Your task to perform on an android device: Open Google Chrome and click the shortcut for Amazon.com Image 0: 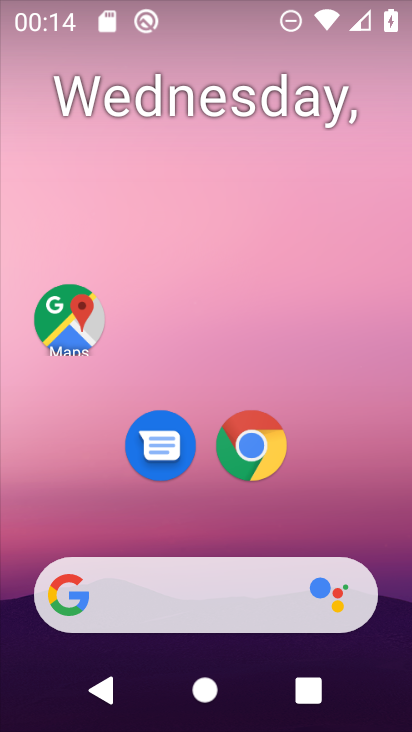
Step 0: click (239, 440)
Your task to perform on an android device: Open Google Chrome and click the shortcut for Amazon.com Image 1: 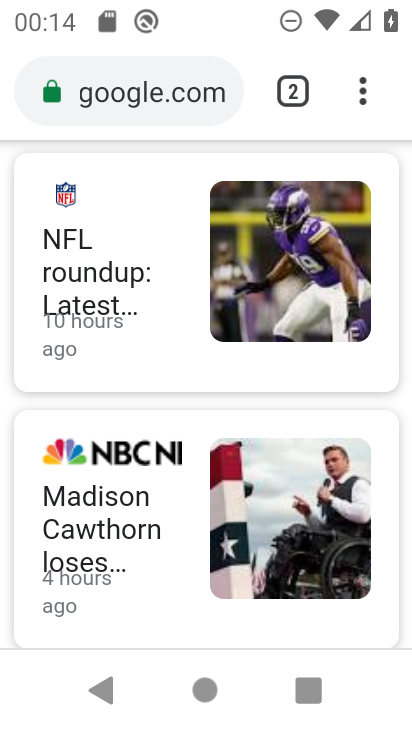
Step 1: click (358, 93)
Your task to perform on an android device: Open Google Chrome and click the shortcut for Amazon.com Image 2: 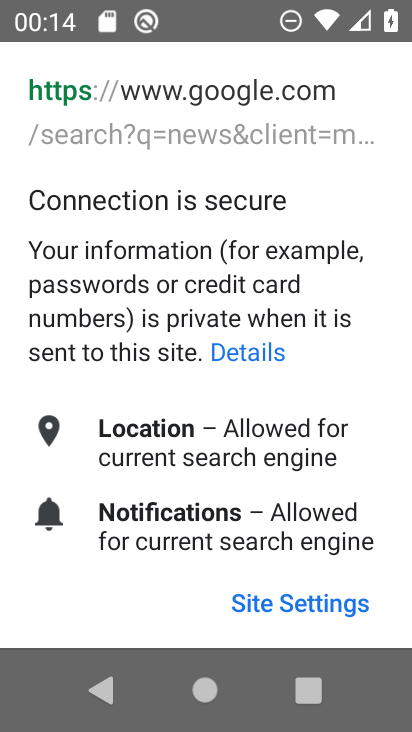
Step 2: press back button
Your task to perform on an android device: Open Google Chrome and click the shortcut for Amazon.com Image 3: 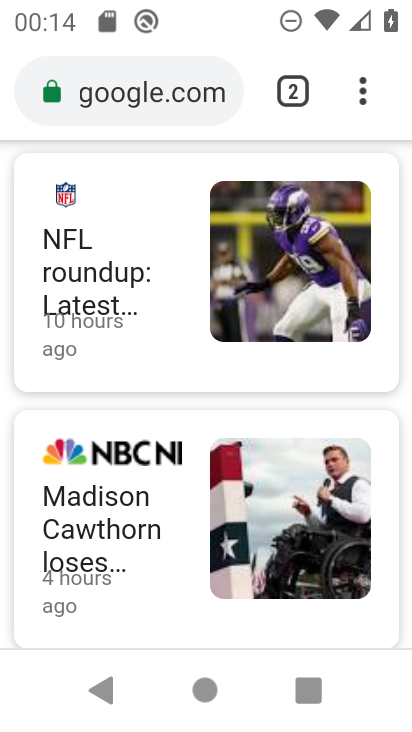
Step 3: click (383, 120)
Your task to perform on an android device: Open Google Chrome and click the shortcut for Amazon.com Image 4: 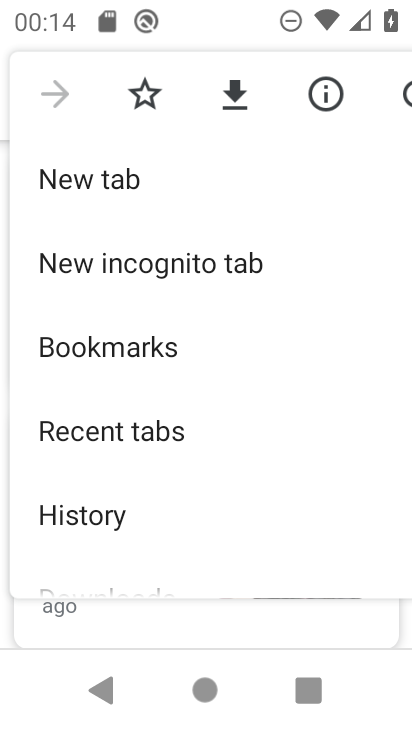
Step 4: click (100, 204)
Your task to perform on an android device: Open Google Chrome and click the shortcut for Amazon.com Image 5: 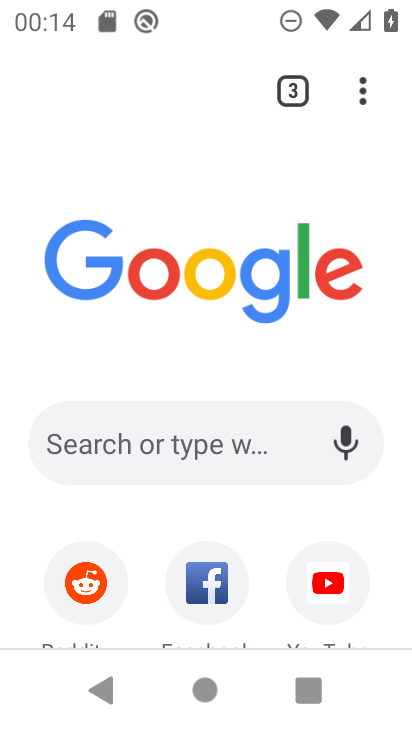
Step 5: drag from (235, 542) to (298, 62)
Your task to perform on an android device: Open Google Chrome and click the shortcut for Amazon.com Image 6: 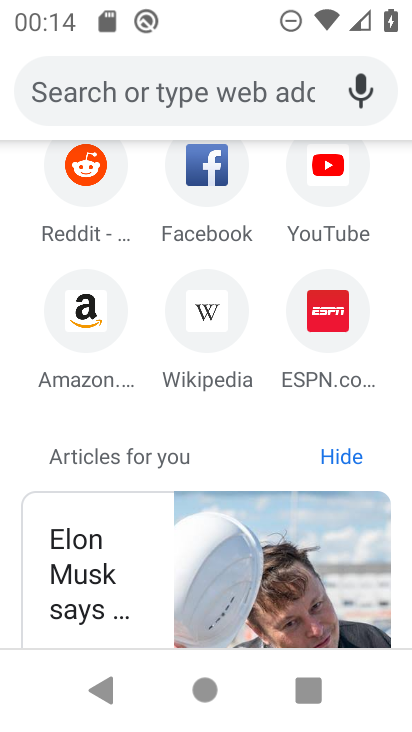
Step 6: click (75, 320)
Your task to perform on an android device: Open Google Chrome and click the shortcut for Amazon.com Image 7: 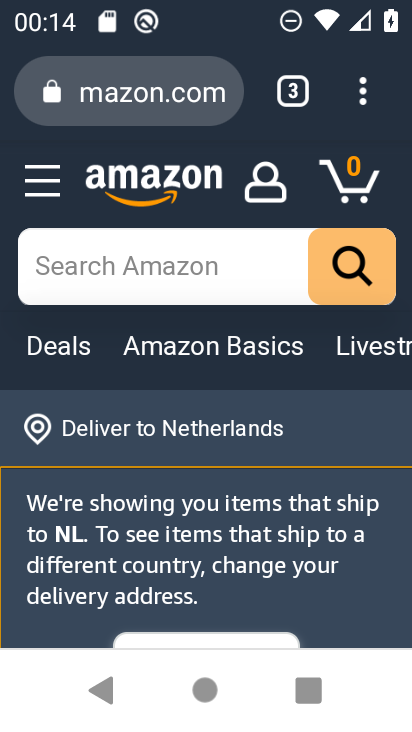
Step 7: task complete